Your task to perform on an android device: Open sound settings Image 0: 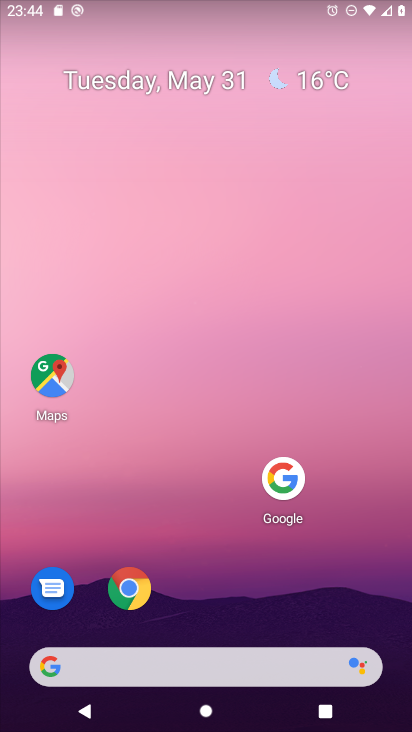
Step 0: press home button
Your task to perform on an android device: Open sound settings Image 1: 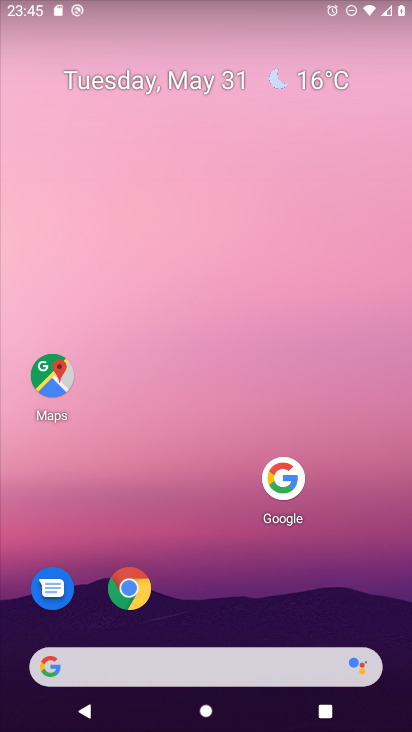
Step 1: drag from (160, 666) to (298, 88)
Your task to perform on an android device: Open sound settings Image 2: 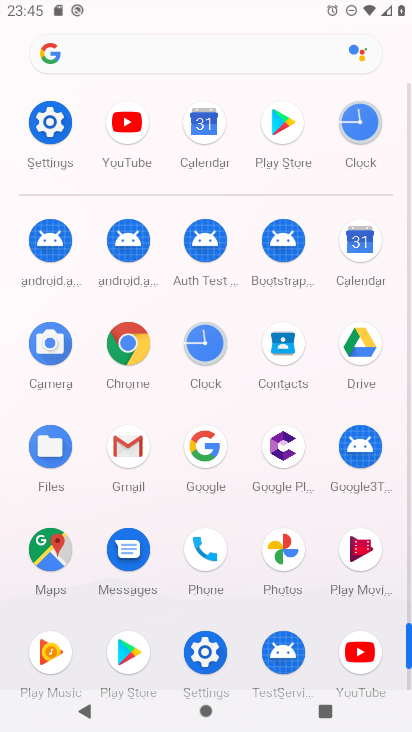
Step 2: click (41, 126)
Your task to perform on an android device: Open sound settings Image 3: 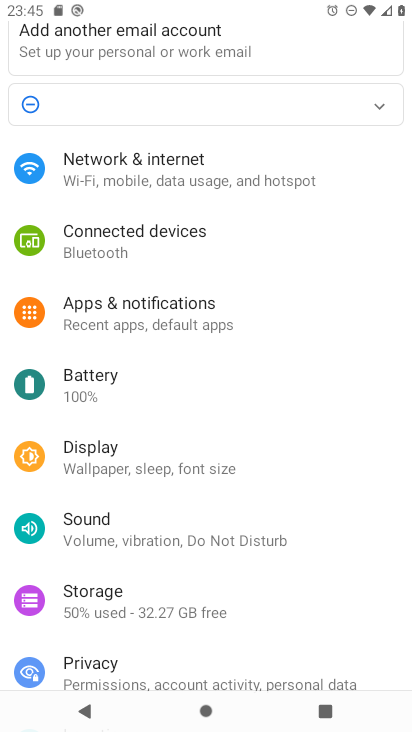
Step 3: click (119, 513)
Your task to perform on an android device: Open sound settings Image 4: 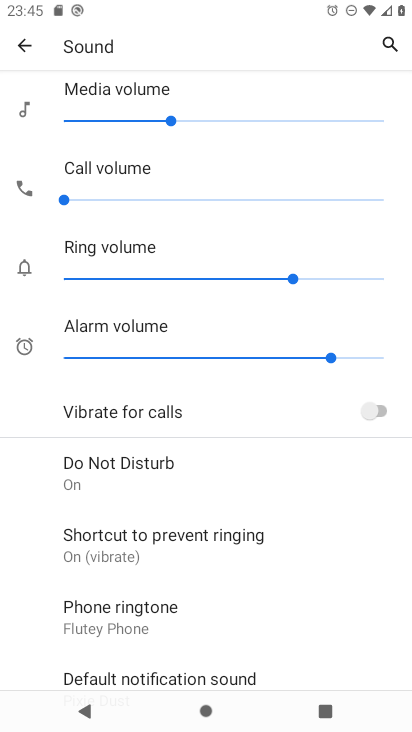
Step 4: task complete